Your task to perform on an android device: Open eBay Image 0: 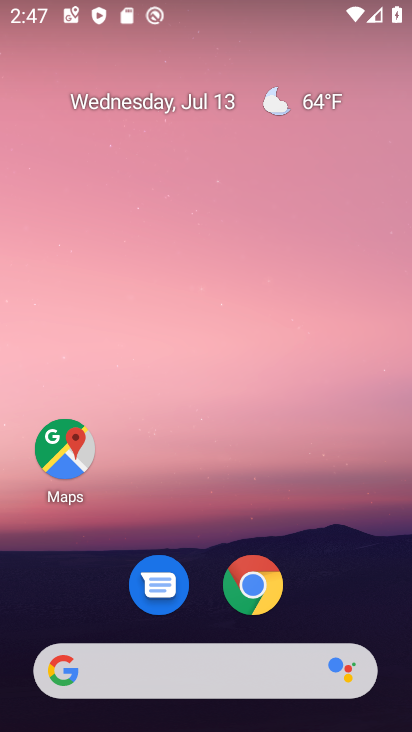
Step 0: press home button
Your task to perform on an android device: Open eBay Image 1: 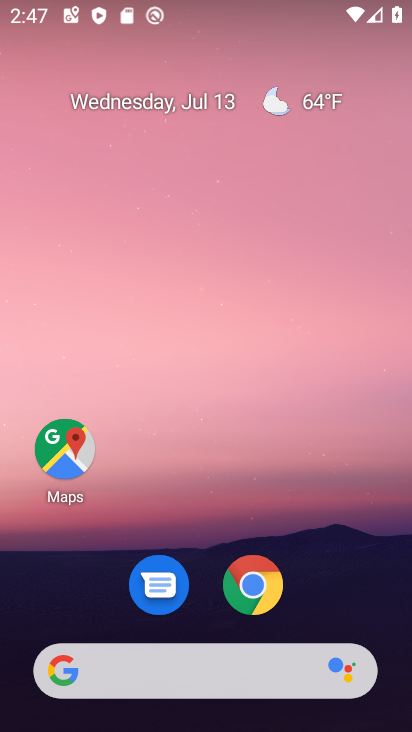
Step 1: click (253, 592)
Your task to perform on an android device: Open eBay Image 2: 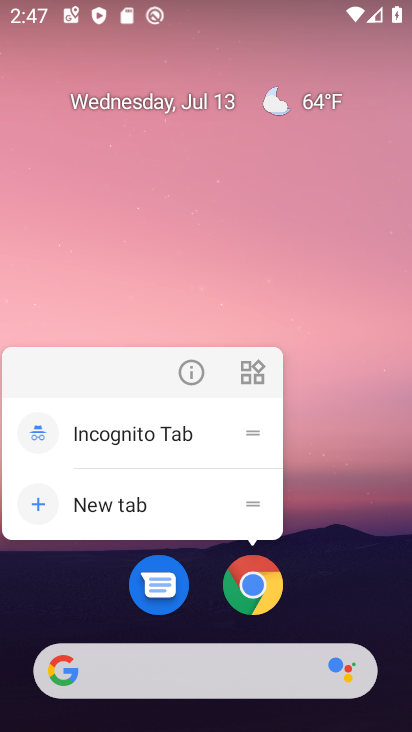
Step 2: click (254, 588)
Your task to perform on an android device: Open eBay Image 3: 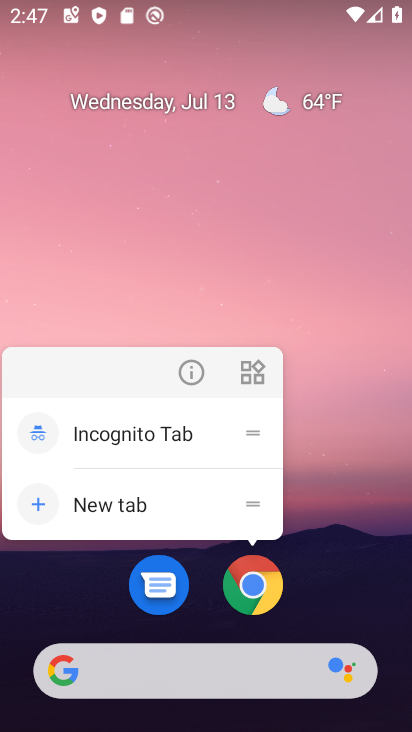
Step 3: click (257, 584)
Your task to perform on an android device: Open eBay Image 4: 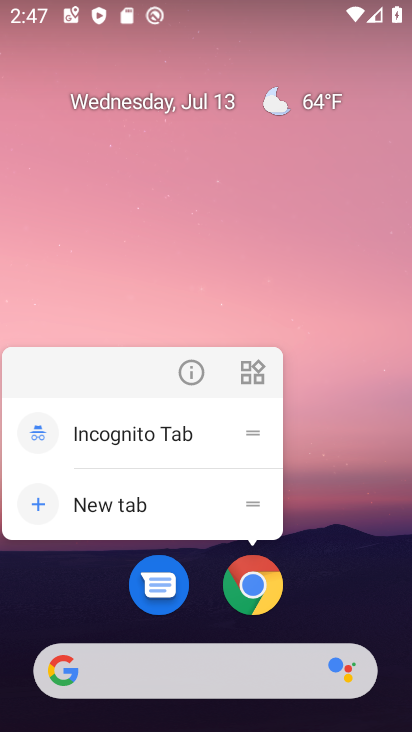
Step 4: click (257, 584)
Your task to perform on an android device: Open eBay Image 5: 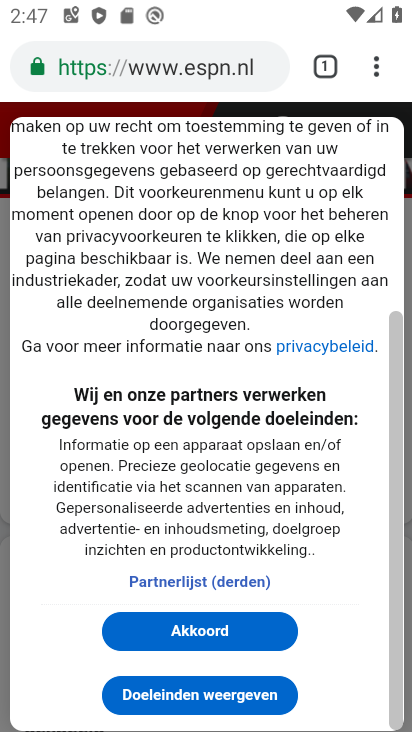
Step 5: drag from (371, 76) to (256, 135)
Your task to perform on an android device: Open eBay Image 6: 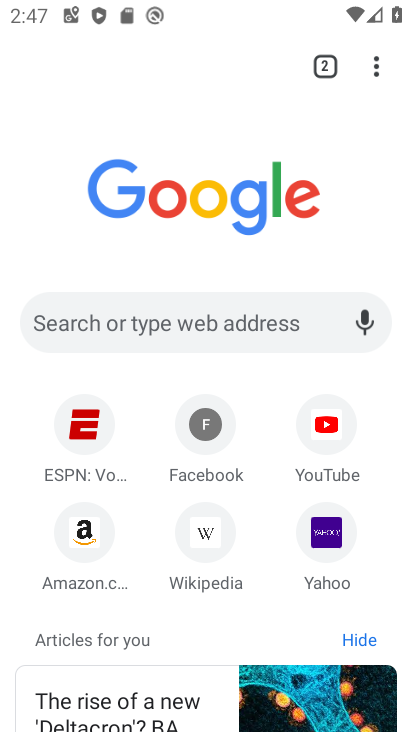
Step 6: click (174, 317)
Your task to perform on an android device: Open eBay Image 7: 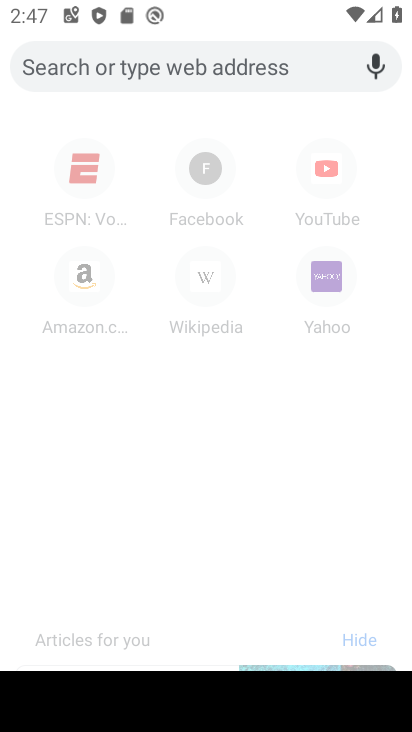
Step 7: type "ebay"
Your task to perform on an android device: Open eBay Image 8: 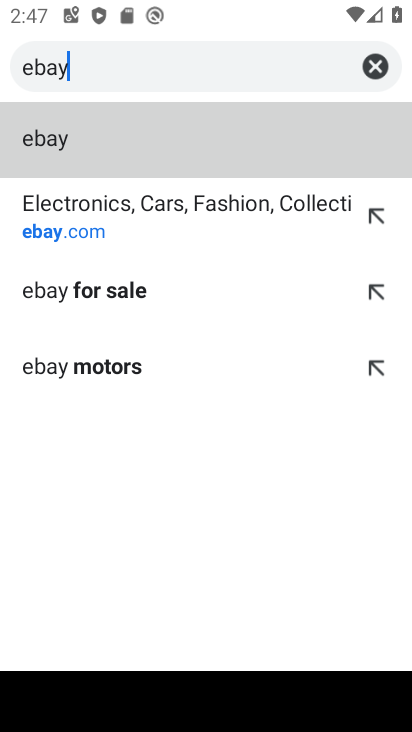
Step 8: click (143, 224)
Your task to perform on an android device: Open eBay Image 9: 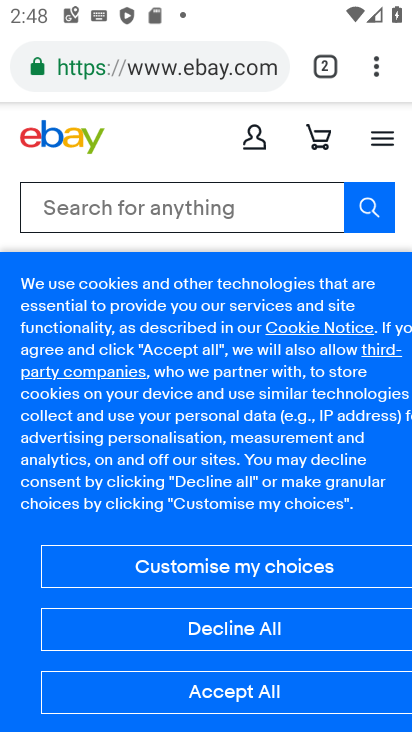
Step 9: click (214, 690)
Your task to perform on an android device: Open eBay Image 10: 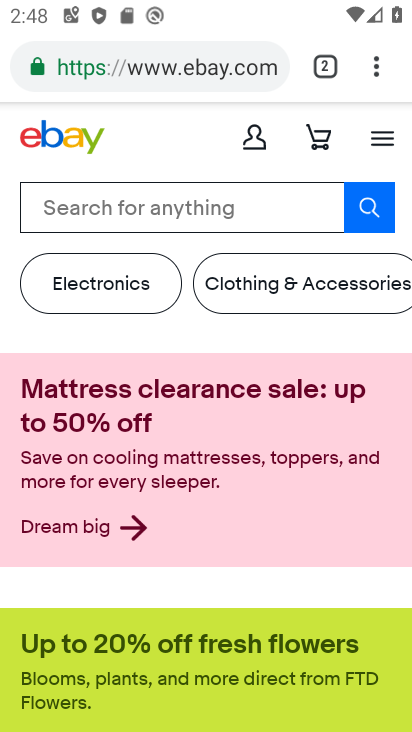
Step 10: task complete